Your task to perform on an android device: Go to Google maps Image 0: 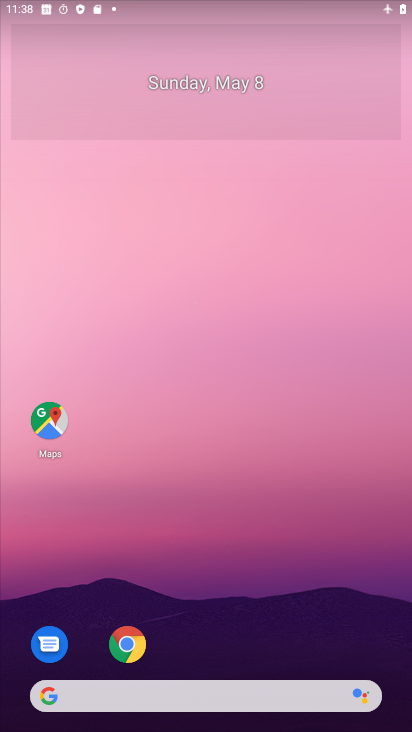
Step 0: drag from (227, 651) to (215, 152)
Your task to perform on an android device: Go to Google maps Image 1: 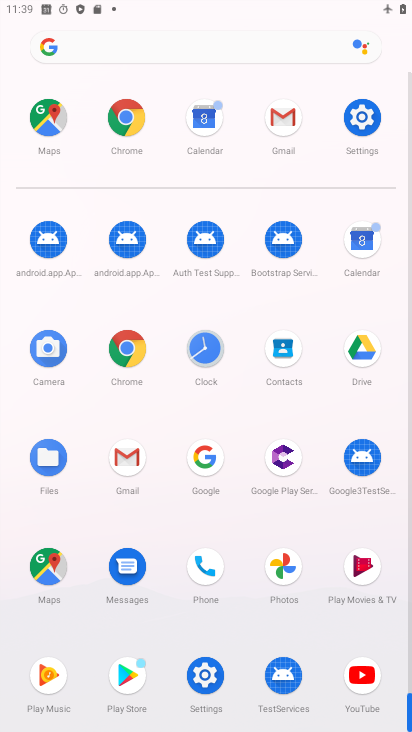
Step 1: click (54, 568)
Your task to perform on an android device: Go to Google maps Image 2: 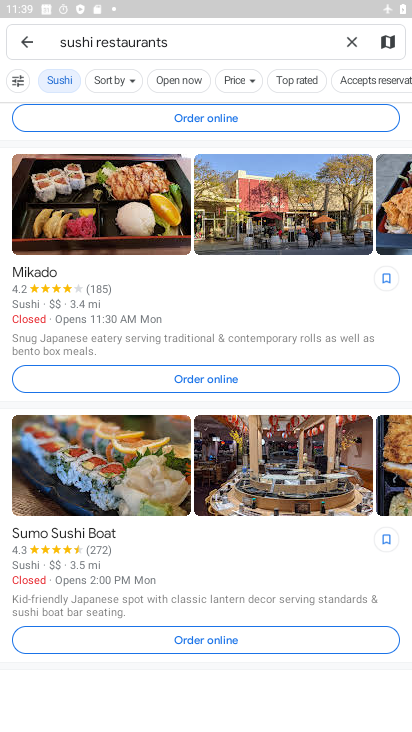
Step 2: task complete